Your task to perform on an android device: open app "Nova Launcher" Image 0: 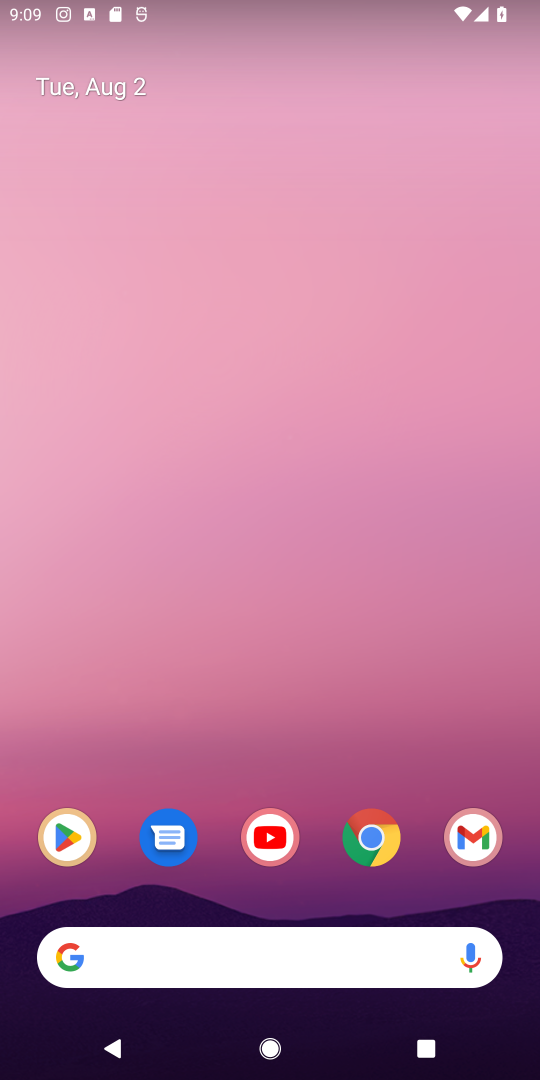
Step 0: click (71, 844)
Your task to perform on an android device: open app "Nova Launcher" Image 1: 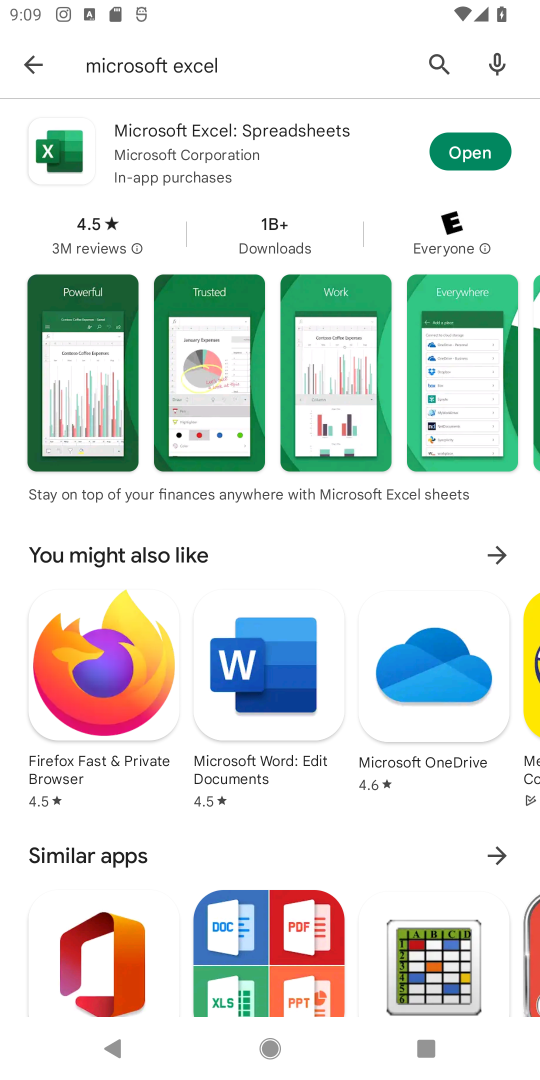
Step 1: click (431, 70)
Your task to perform on an android device: open app "Nova Launcher" Image 2: 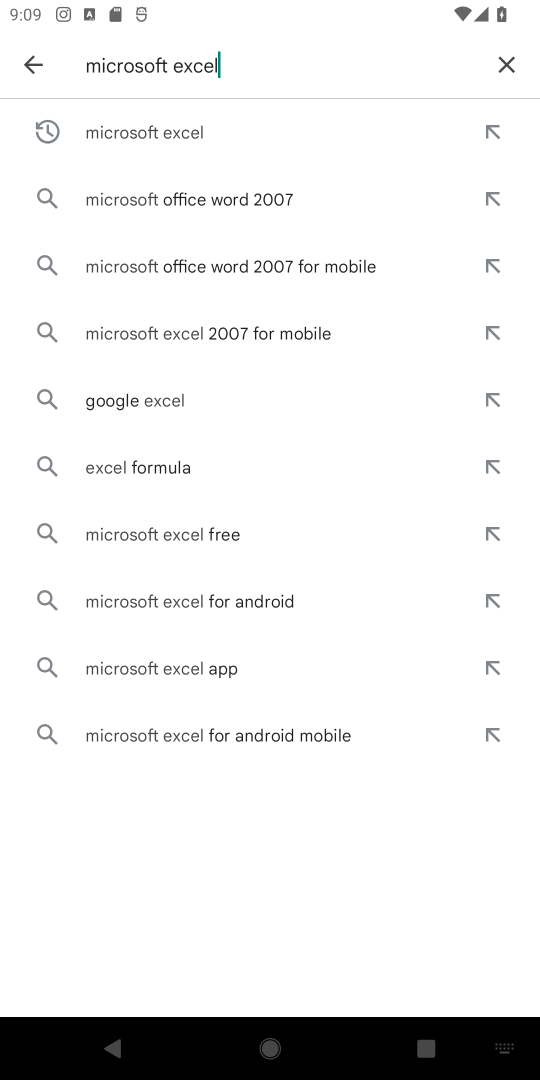
Step 2: click (510, 62)
Your task to perform on an android device: open app "Nova Launcher" Image 3: 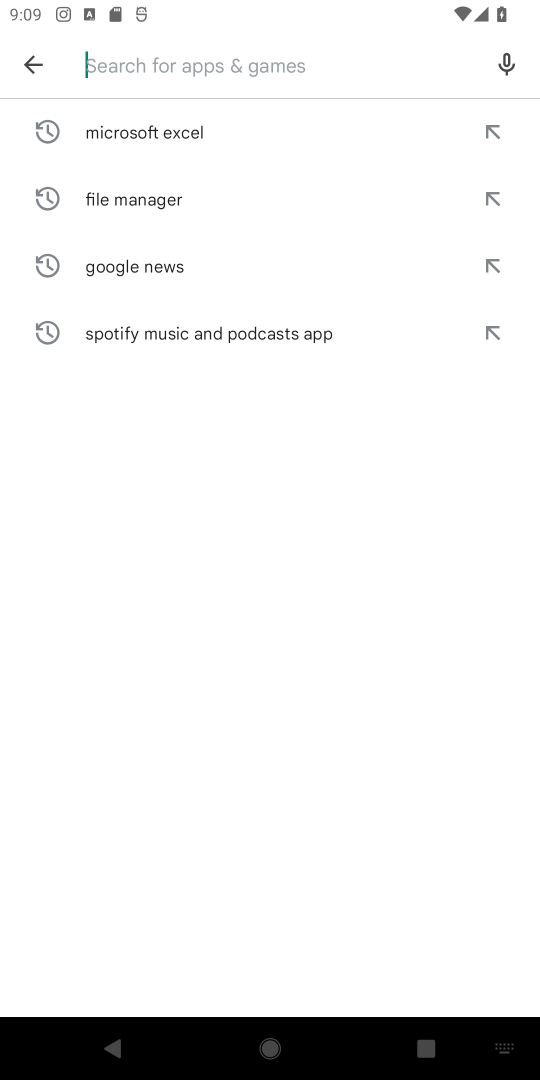
Step 3: type "Nova Launcher"
Your task to perform on an android device: open app "Nova Launcher" Image 4: 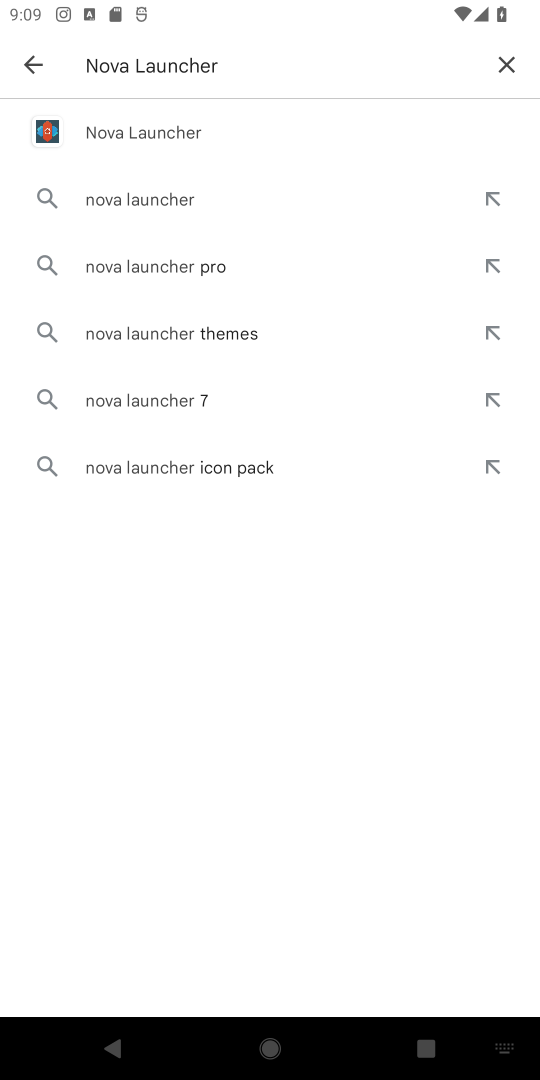
Step 4: click (156, 129)
Your task to perform on an android device: open app "Nova Launcher" Image 5: 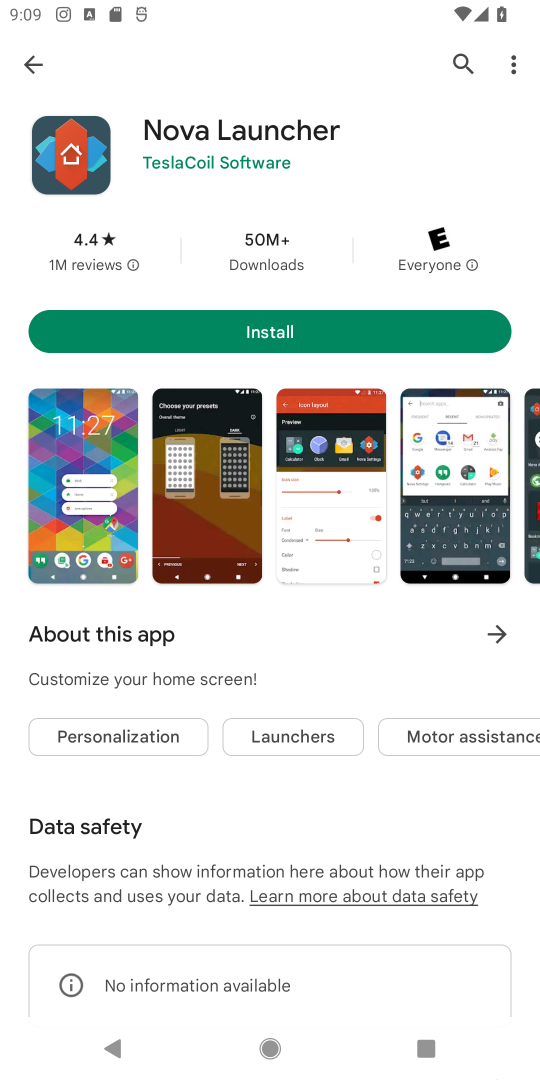
Step 5: task complete